Your task to perform on an android device: change the upload size in google photos Image 0: 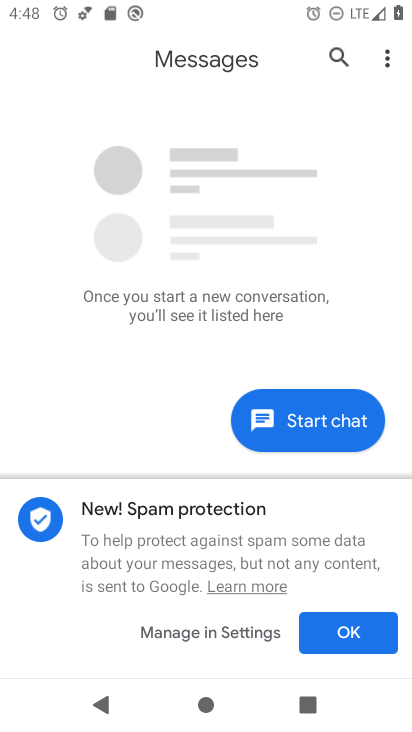
Step 0: press home button
Your task to perform on an android device: change the upload size in google photos Image 1: 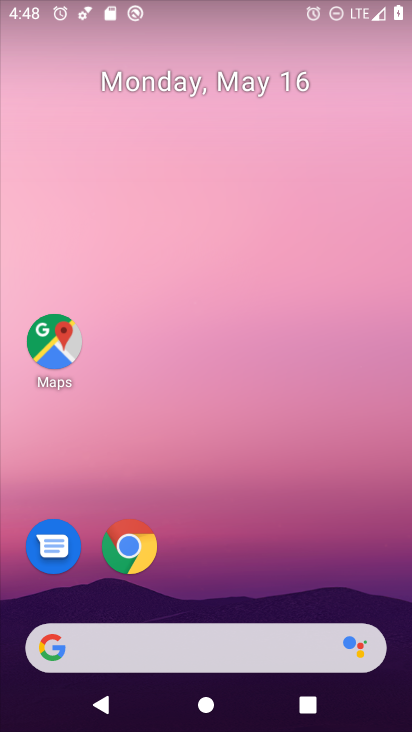
Step 1: drag from (362, 564) to (354, 178)
Your task to perform on an android device: change the upload size in google photos Image 2: 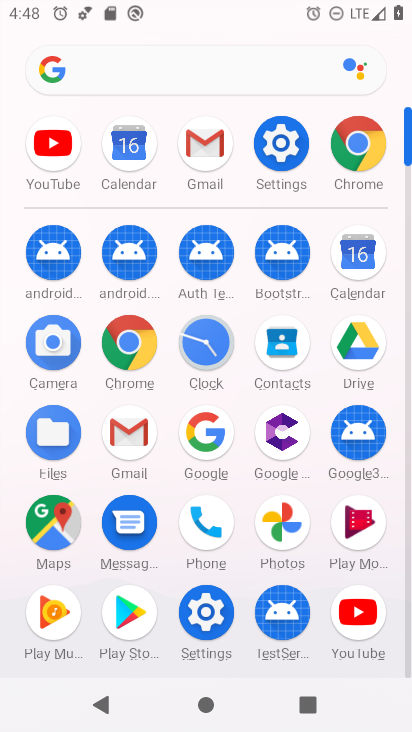
Step 2: click (293, 530)
Your task to perform on an android device: change the upload size in google photos Image 3: 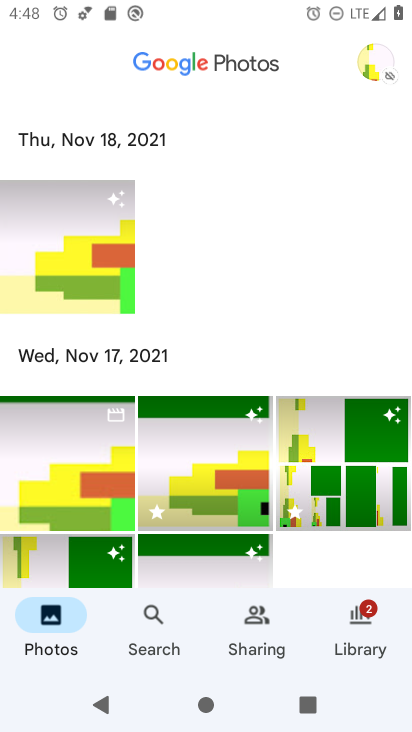
Step 3: click (378, 72)
Your task to perform on an android device: change the upload size in google photos Image 4: 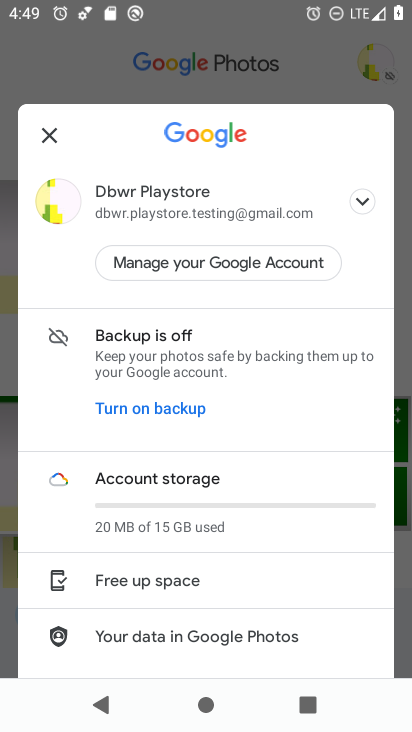
Step 4: drag from (314, 565) to (327, 396)
Your task to perform on an android device: change the upload size in google photos Image 5: 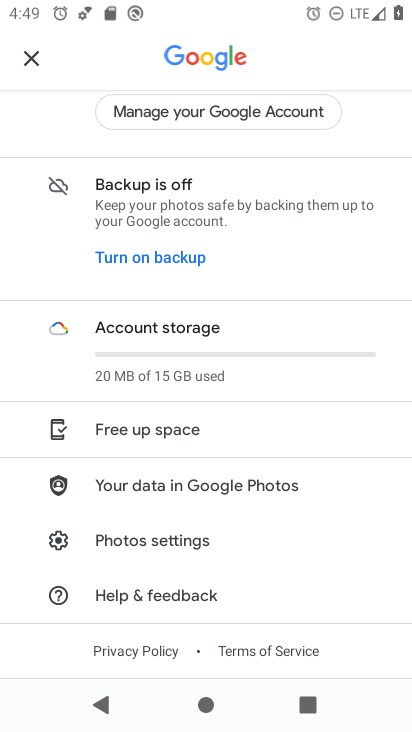
Step 5: drag from (315, 585) to (314, 424)
Your task to perform on an android device: change the upload size in google photos Image 6: 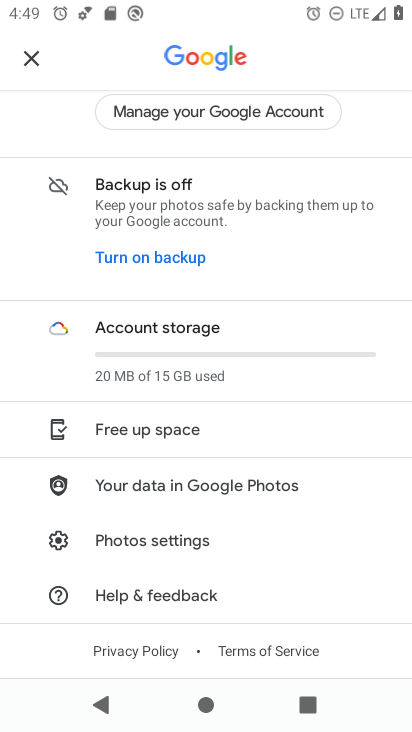
Step 6: click (186, 560)
Your task to perform on an android device: change the upload size in google photos Image 7: 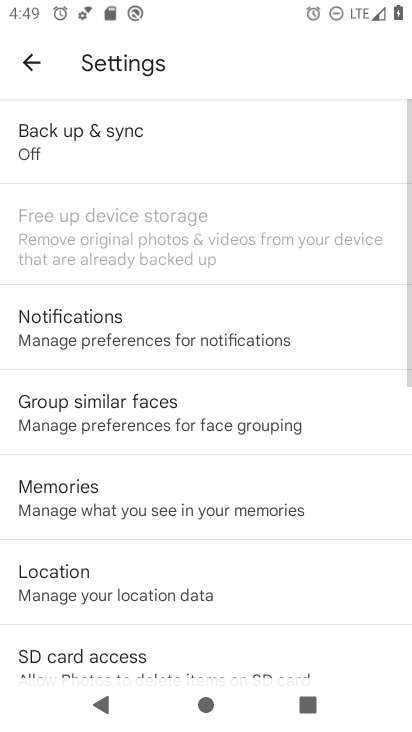
Step 7: drag from (288, 594) to (323, 430)
Your task to perform on an android device: change the upload size in google photos Image 8: 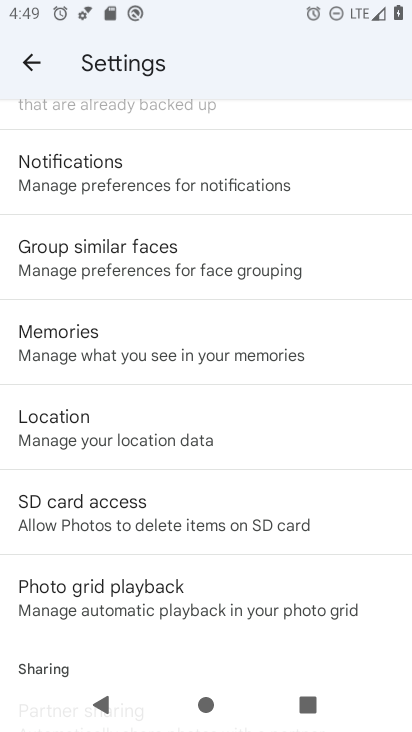
Step 8: drag from (301, 660) to (312, 507)
Your task to perform on an android device: change the upload size in google photos Image 9: 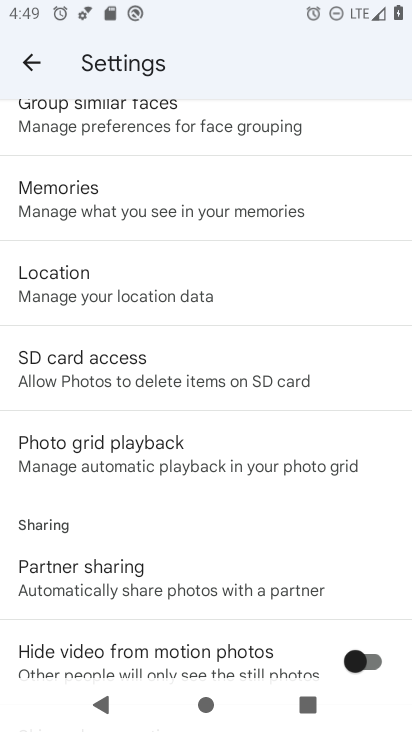
Step 9: drag from (288, 626) to (286, 488)
Your task to perform on an android device: change the upload size in google photos Image 10: 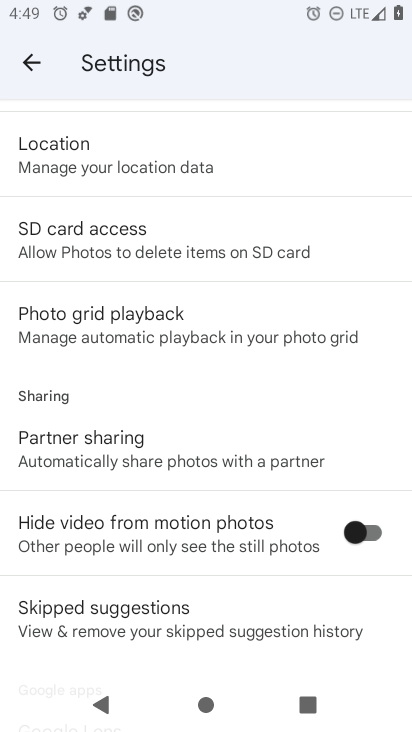
Step 10: drag from (289, 649) to (293, 493)
Your task to perform on an android device: change the upload size in google photos Image 11: 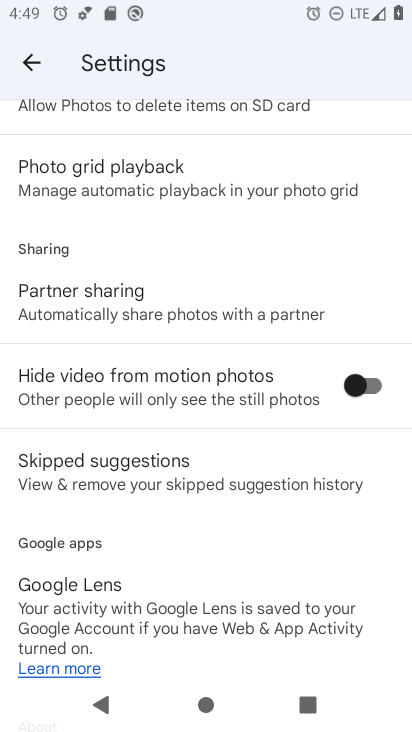
Step 11: drag from (318, 261) to (297, 384)
Your task to perform on an android device: change the upload size in google photos Image 12: 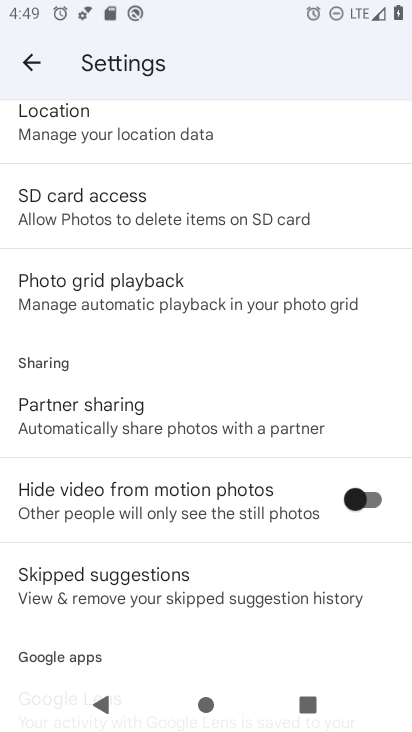
Step 12: drag from (312, 239) to (284, 423)
Your task to perform on an android device: change the upload size in google photos Image 13: 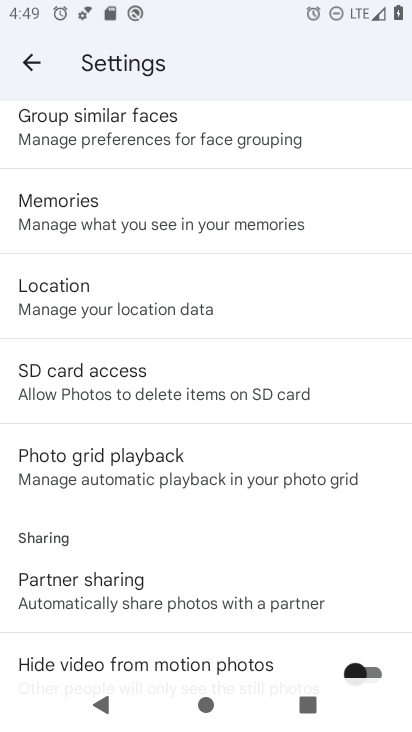
Step 13: drag from (303, 260) to (300, 380)
Your task to perform on an android device: change the upload size in google photos Image 14: 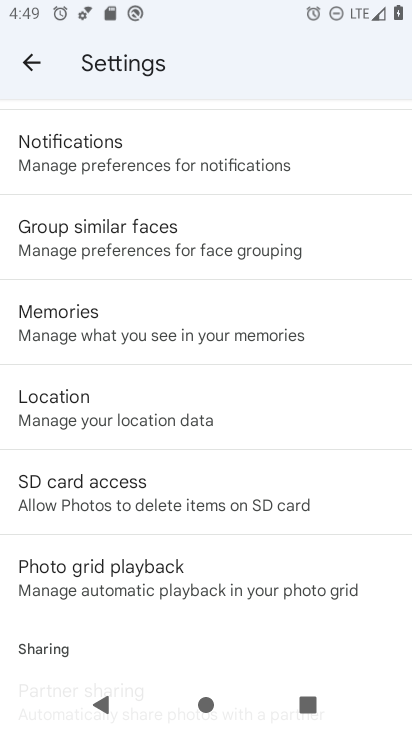
Step 14: drag from (316, 215) to (287, 392)
Your task to perform on an android device: change the upload size in google photos Image 15: 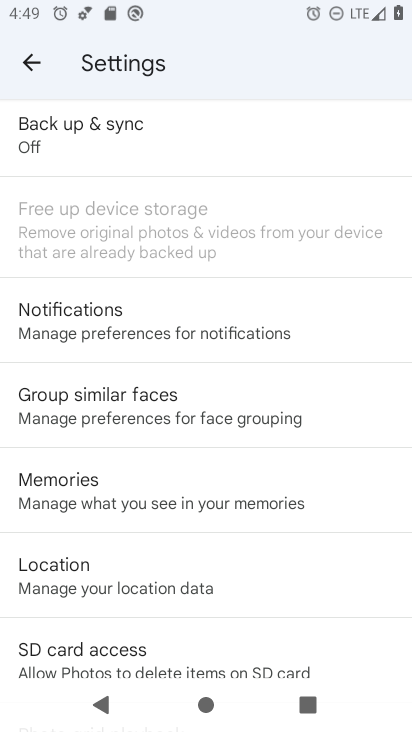
Step 15: drag from (296, 183) to (282, 319)
Your task to perform on an android device: change the upload size in google photos Image 16: 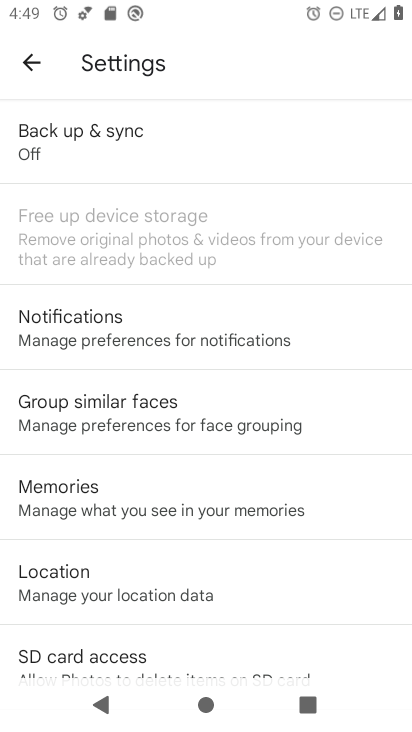
Step 16: click (160, 150)
Your task to perform on an android device: change the upload size in google photos Image 17: 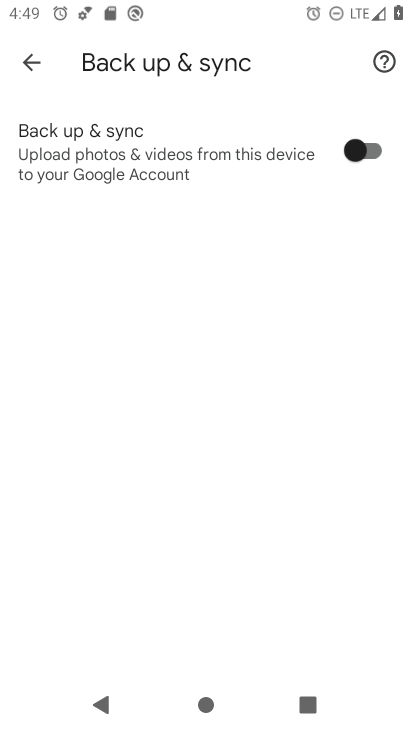
Step 17: click (359, 139)
Your task to perform on an android device: change the upload size in google photos Image 18: 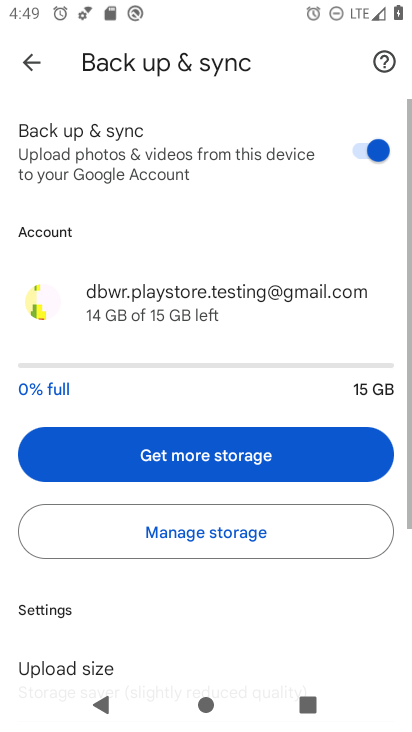
Step 18: drag from (201, 597) to (244, 360)
Your task to perform on an android device: change the upload size in google photos Image 19: 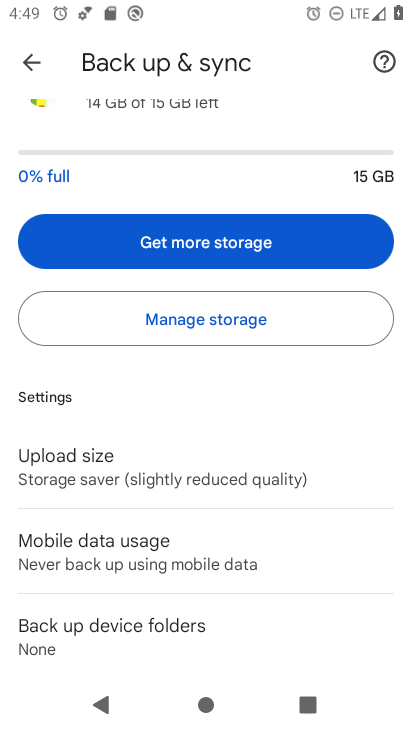
Step 19: click (232, 480)
Your task to perform on an android device: change the upload size in google photos Image 20: 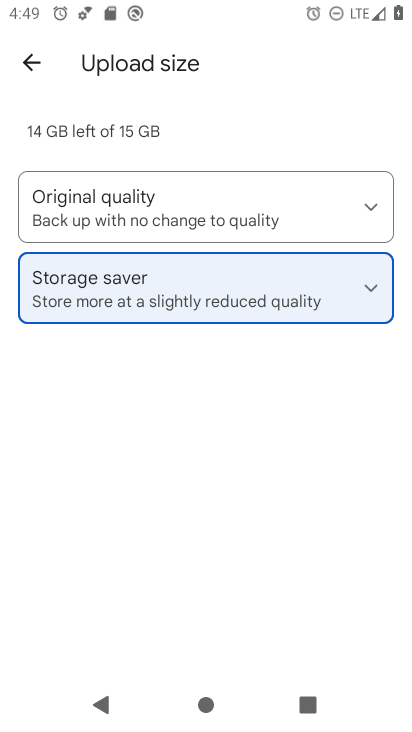
Step 20: click (171, 203)
Your task to perform on an android device: change the upload size in google photos Image 21: 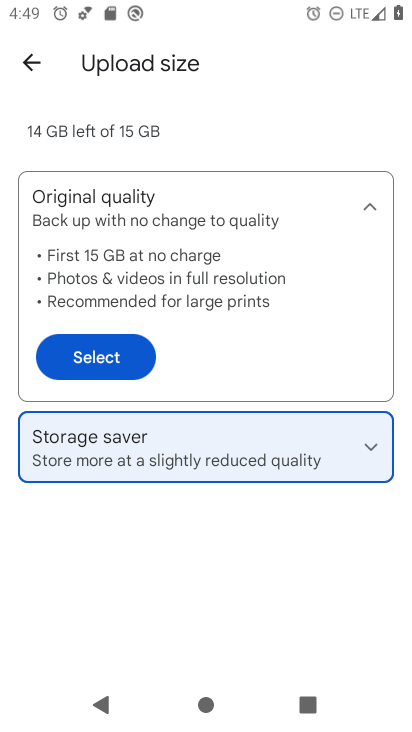
Step 21: click (141, 371)
Your task to perform on an android device: change the upload size in google photos Image 22: 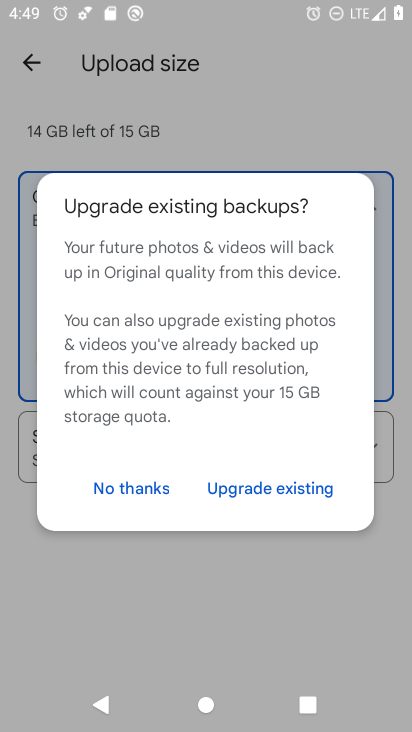
Step 22: click (215, 487)
Your task to perform on an android device: change the upload size in google photos Image 23: 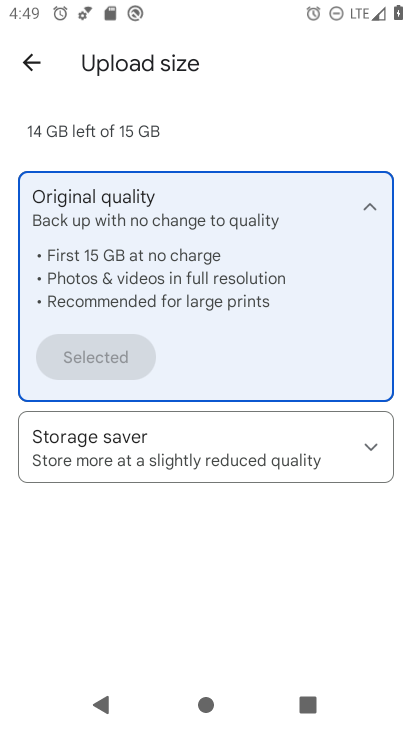
Step 23: task complete